Your task to perform on an android device: Go to Amazon Image 0: 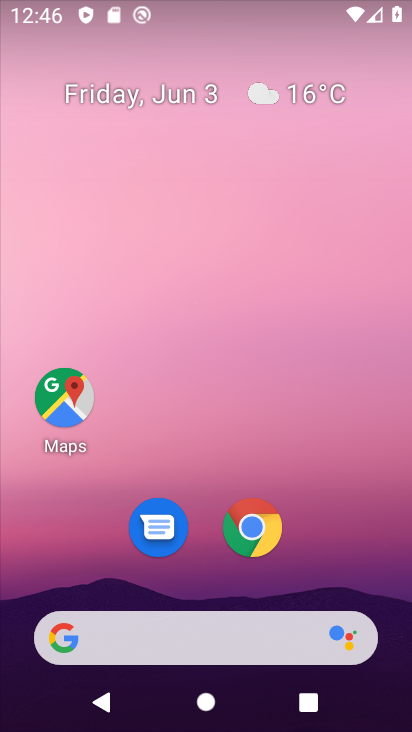
Step 0: click (245, 643)
Your task to perform on an android device: Go to Amazon Image 1: 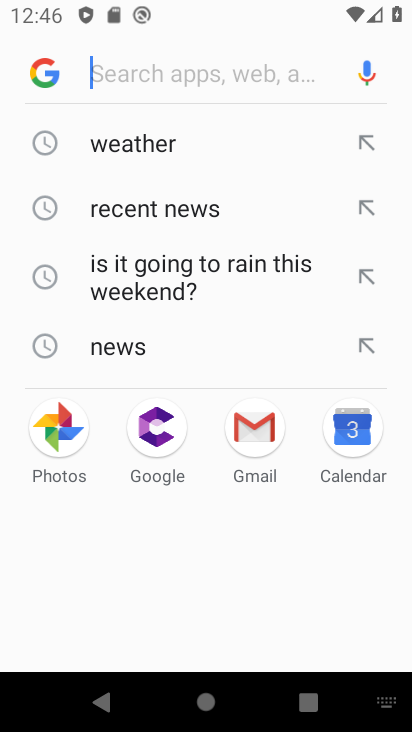
Step 1: type "Amazon"
Your task to perform on an android device: Go to Amazon Image 2: 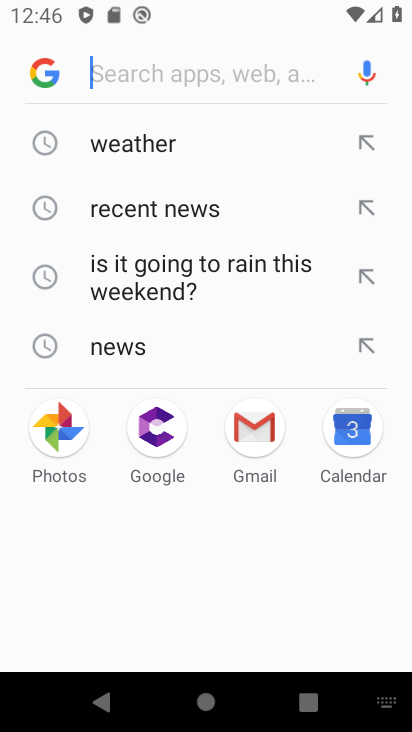
Step 2: click (175, 68)
Your task to perform on an android device: Go to Amazon Image 3: 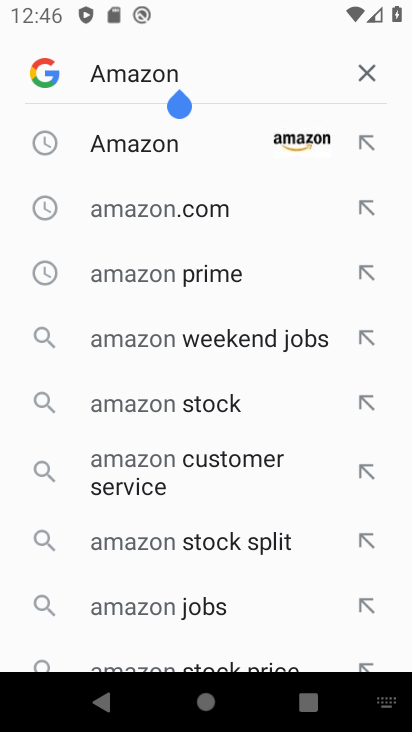
Step 3: click (156, 143)
Your task to perform on an android device: Go to Amazon Image 4: 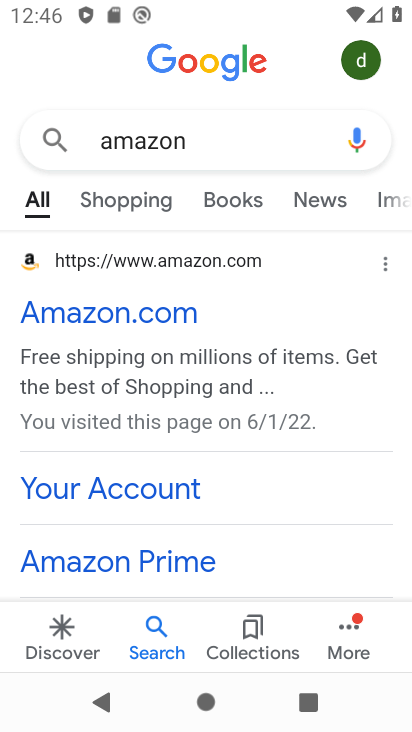
Step 4: click (109, 318)
Your task to perform on an android device: Go to Amazon Image 5: 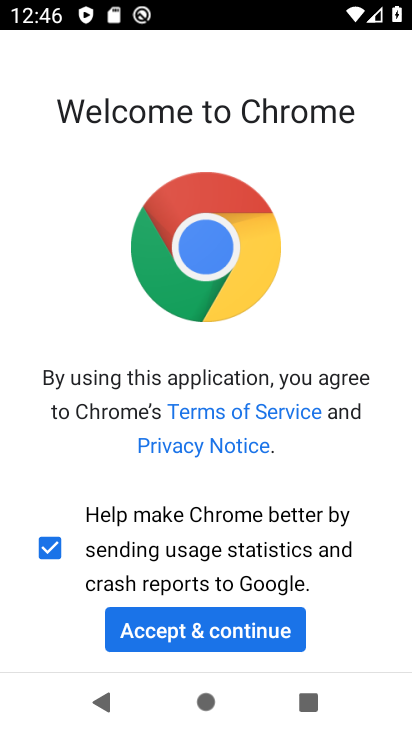
Step 5: click (149, 628)
Your task to perform on an android device: Go to Amazon Image 6: 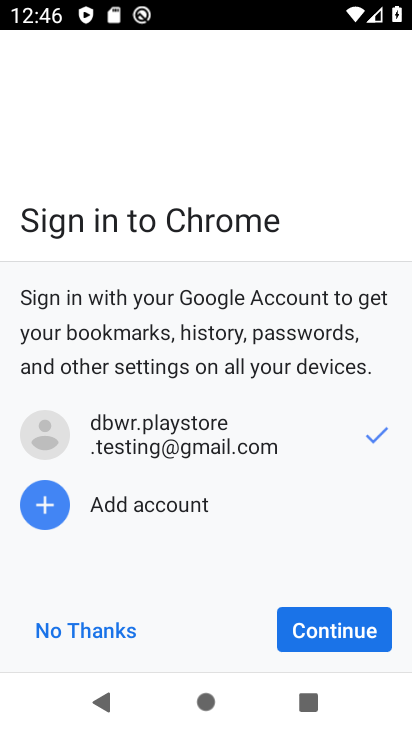
Step 6: click (340, 637)
Your task to perform on an android device: Go to Amazon Image 7: 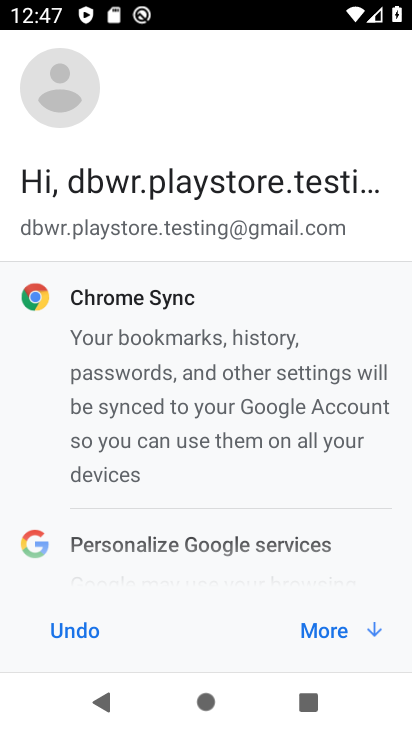
Step 7: click (375, 631)
Your task to perform on an android device: Go to Amazon Image 8: 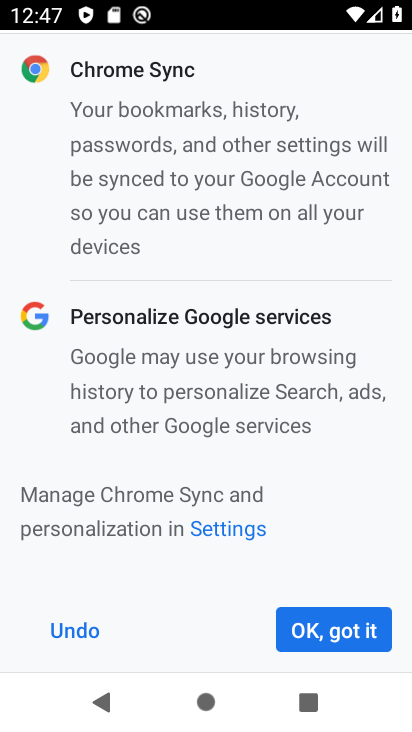
Step 8: click (322, 634)
Your task to perform on an android device: Go to Amazon Image 9: 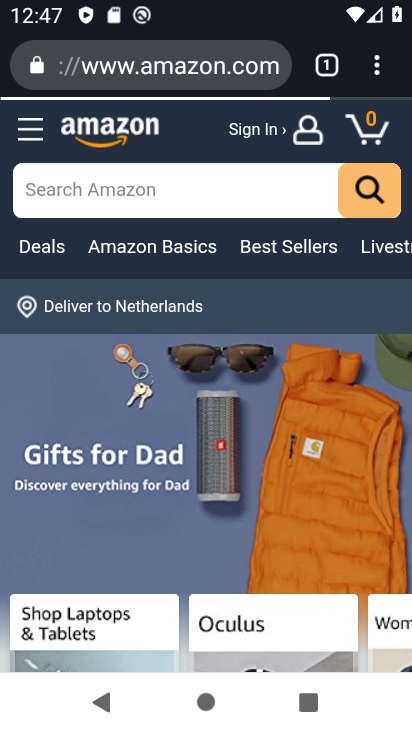
Step 9: task complete